Your task to perform on an android device: visit the assistant section in the google photos Image 0: 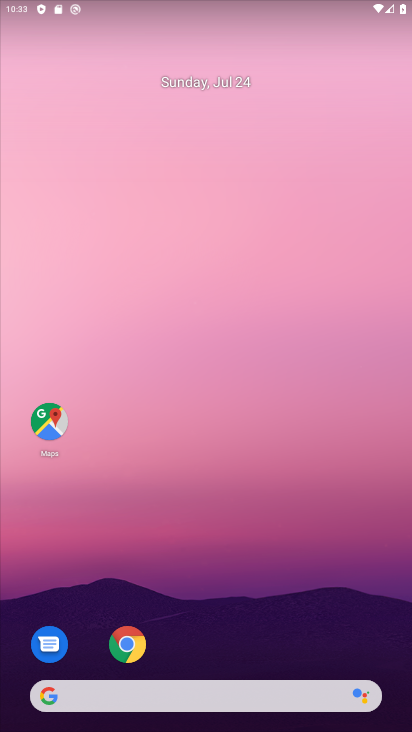
Step 0: drag from (292, 172) to (288, 20)
Your task to perform on an android device: visit the assistant section in the google photos Image 1: 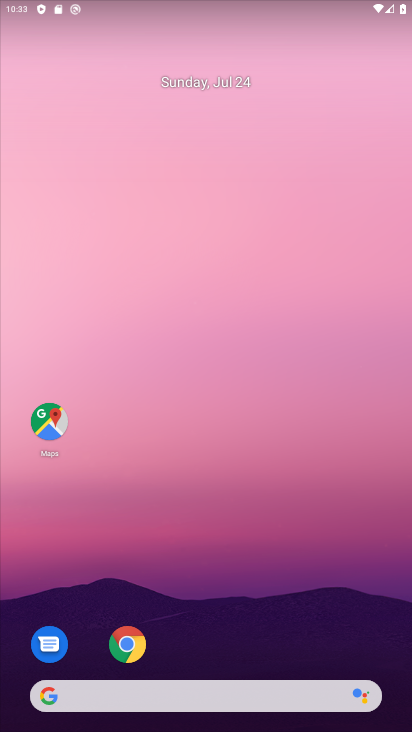
Step 1: drag from (262, 674) to (253, 21)
Your task to perform on an android device: visit the assistant section in the google photos Image 2: 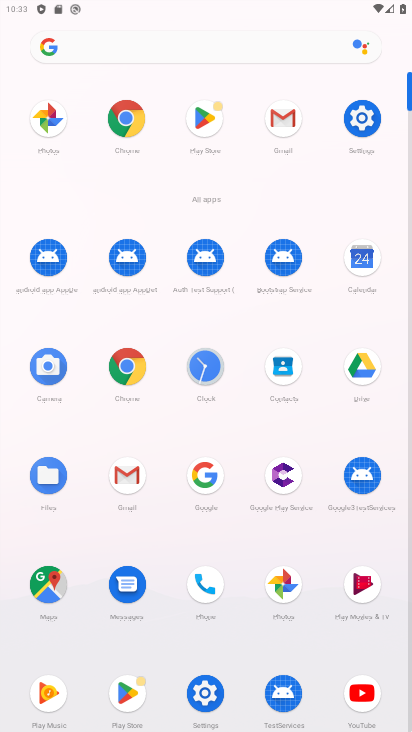
Step 2: click (48, 118)
Your task to perform on an android device: visit the assistant section in the google photos Image 3: 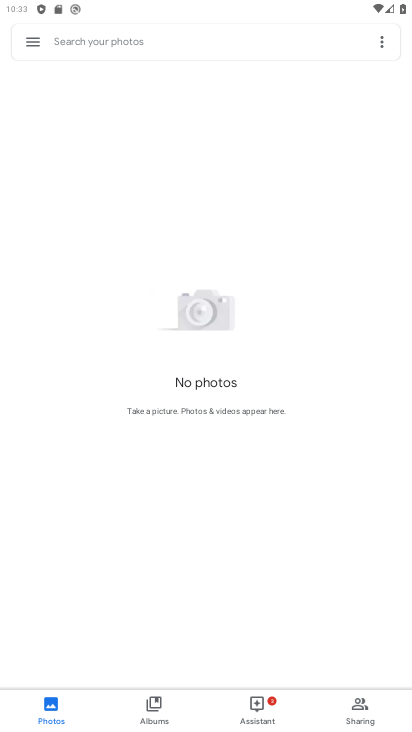
Step 3: click (259, 714)
Your task to perform on an android device: visit the assistant section in the google photos Image 4: 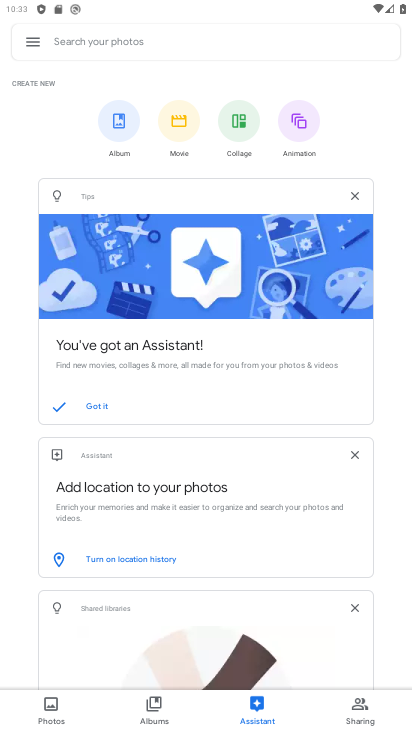
Step 4: task complete